Your task to perform on an android device: Open Amazon Image 0: 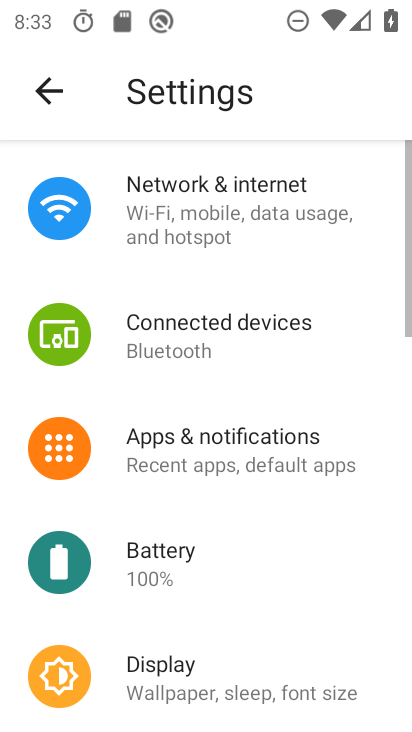
Step 0: press home button
Your task to perform on an android device: Open Amazon Image 1: 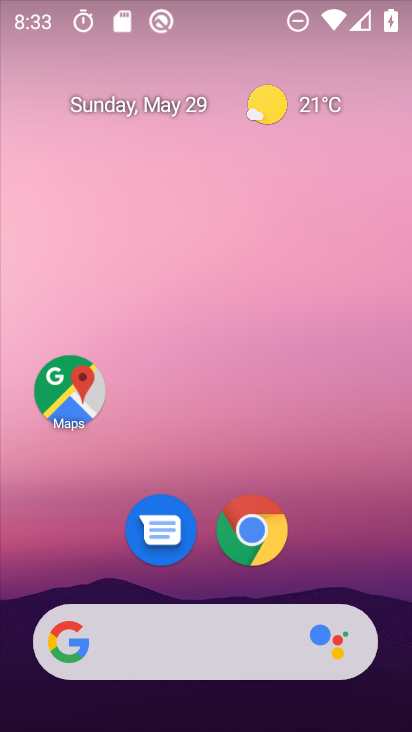
Step 1: drag from (213, 672) to (211, 127)
Your task to perform on an android device: Open Amazon Image 2: 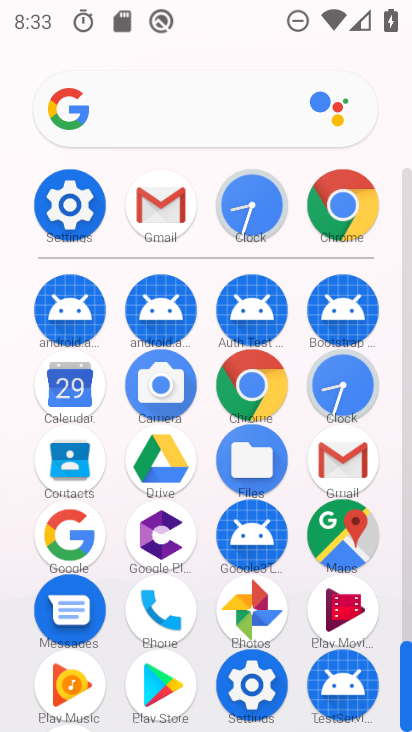
Step 2: click (337, 203)
Your task to perform on an android device: Open Amazon Image 3: 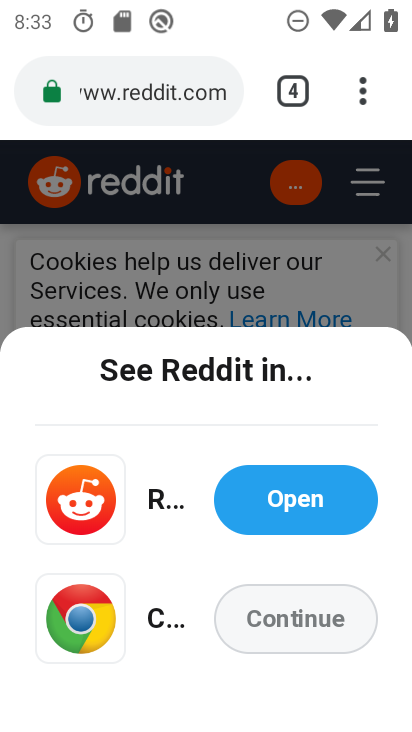
Step 3: click (357, 108)
Your task to perform on an android device: Open Amazon Image 4: 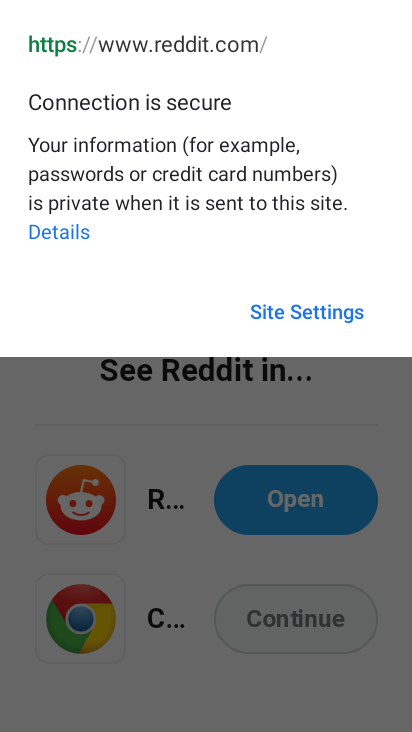
Step 4: click (75, 524)
Your task to perform on an android device: Open Amazon Image 5: 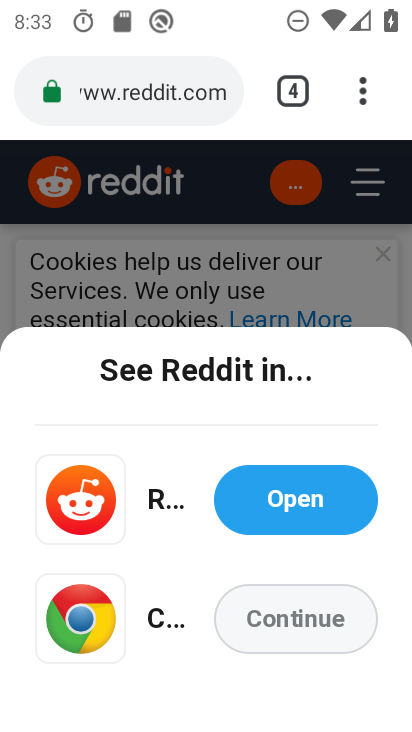
Step 5: click (359, 99)
Your task to perform on an android device: Open Amazon Image 6: 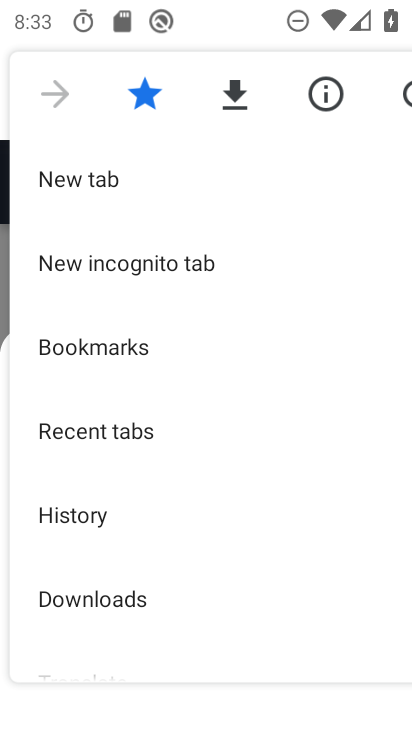
Step 6: click (69, 178)
Your task to perform on an android device: Open Amazon Image 7: 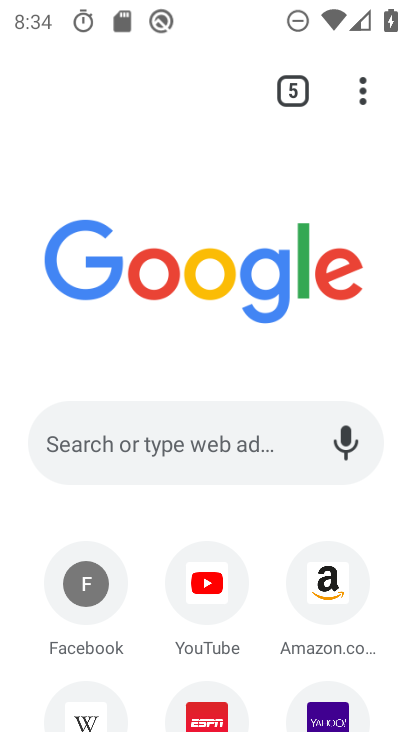
Step 7: click (347, 585)
Your task to perform on an android device: Open Amazon Image 8: 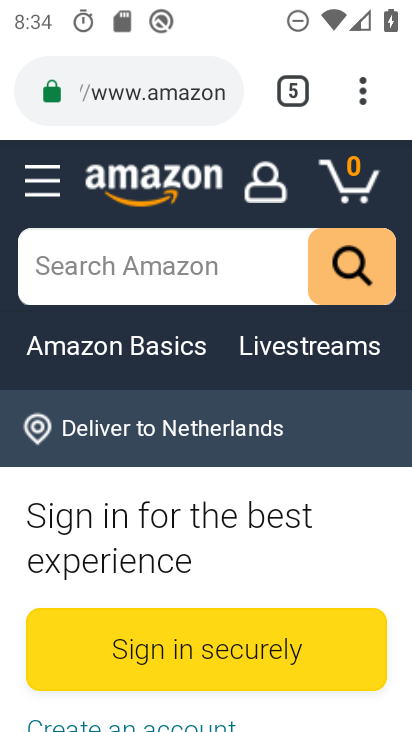
Step 8: task complete